Your task to perform on an android device: Clear the shopping cart on costco. Add "panasonic triple a" to the cart on costco Image 0: 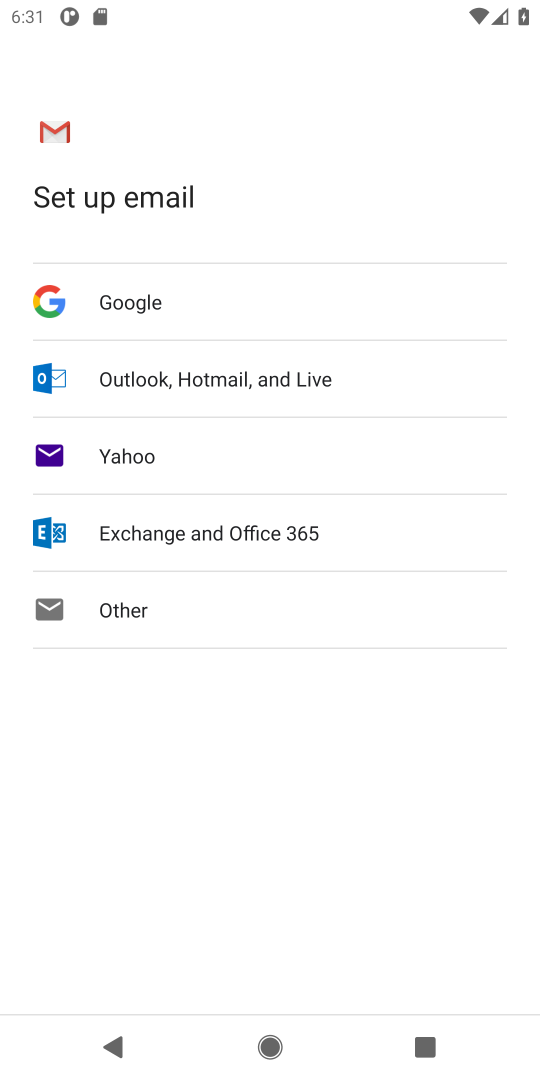
Step 0: press home button
Your task to perform on an android device: Clear the shopping cart on costco. Add "panasonic triple a" to the cart on costco Image 1: 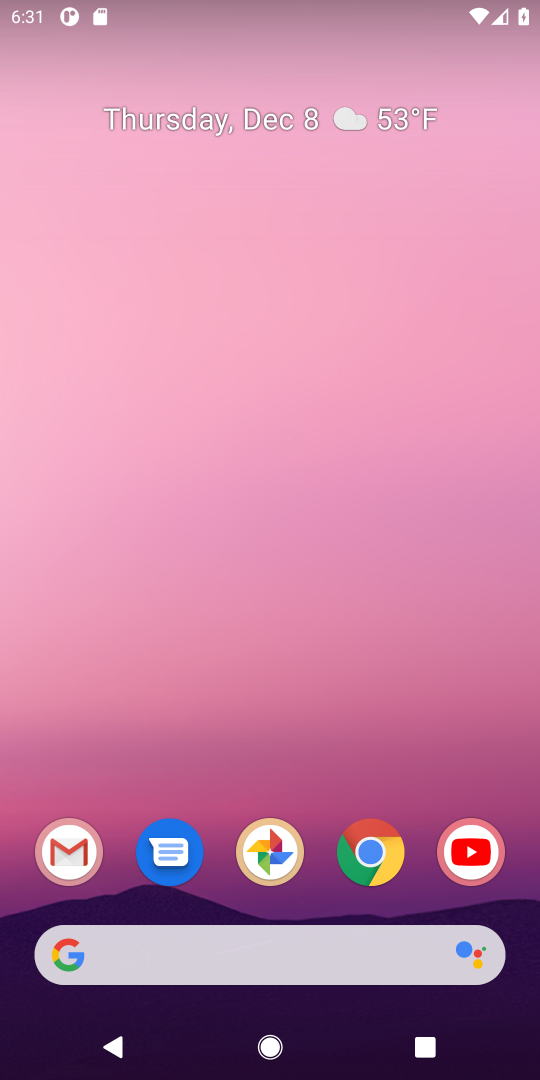
Step 1: click (246, 971)
Your task to perform on an android device: Clear the shopping cart on costco. Add "panasonic triple a" to the cart on costco Image 2: 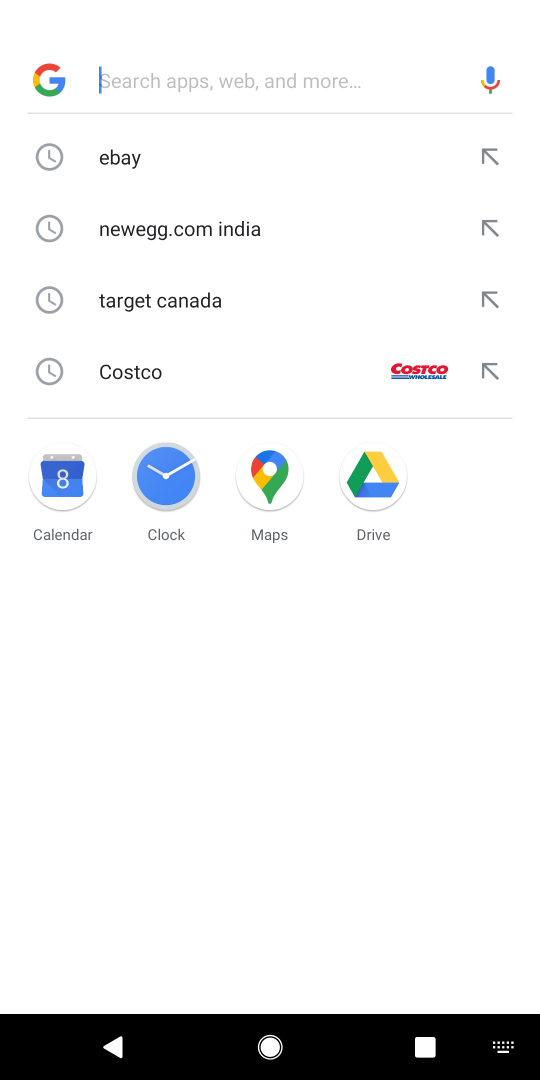
Step 2: click (159, 373)
Your task to perform on an android device: Clear the shopping cart on costco. Add "panasonic triple a" to the cart on costco Image 3: 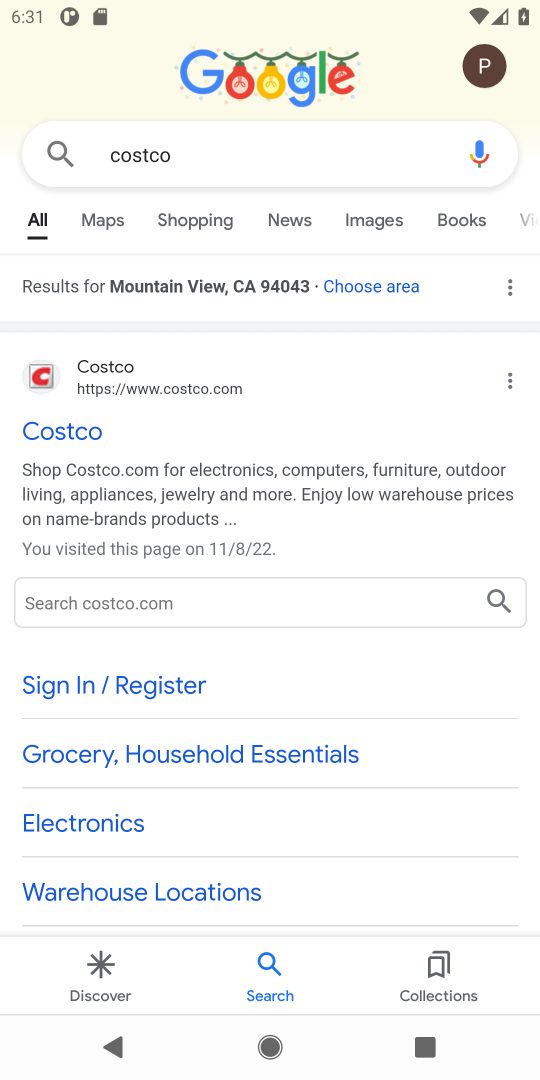
Step 3: click (81, 425)
Your task to perform on an android device: Clear the shopping cart on costco. Add "panasonic triple a" to the cart on costco Image 4: 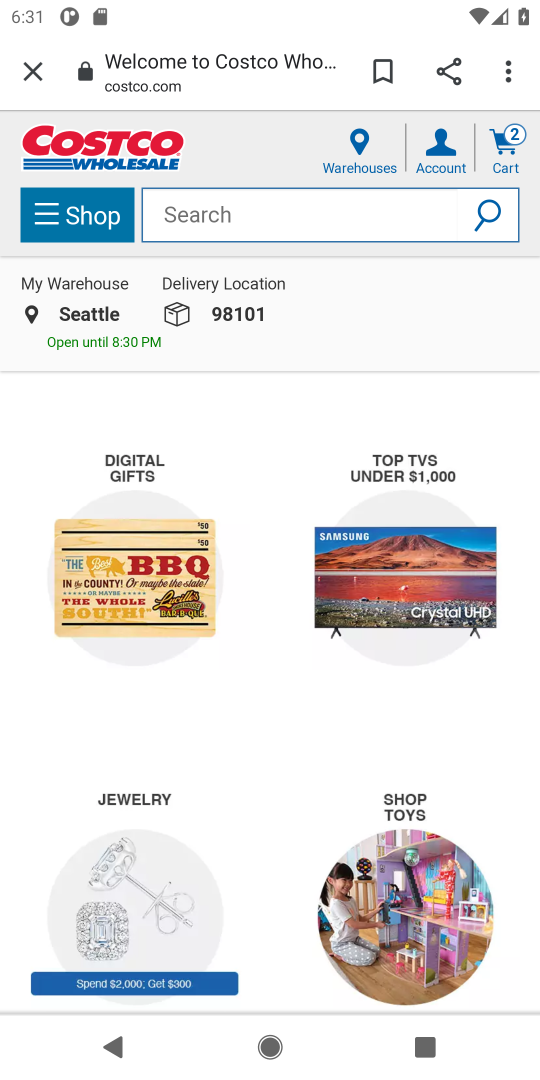
Step 4: click (300, 222)
Your task to perform on an android device: Clear the shopping cart on costco. Add "panasonic triple a" to the cart on costco Image 5: 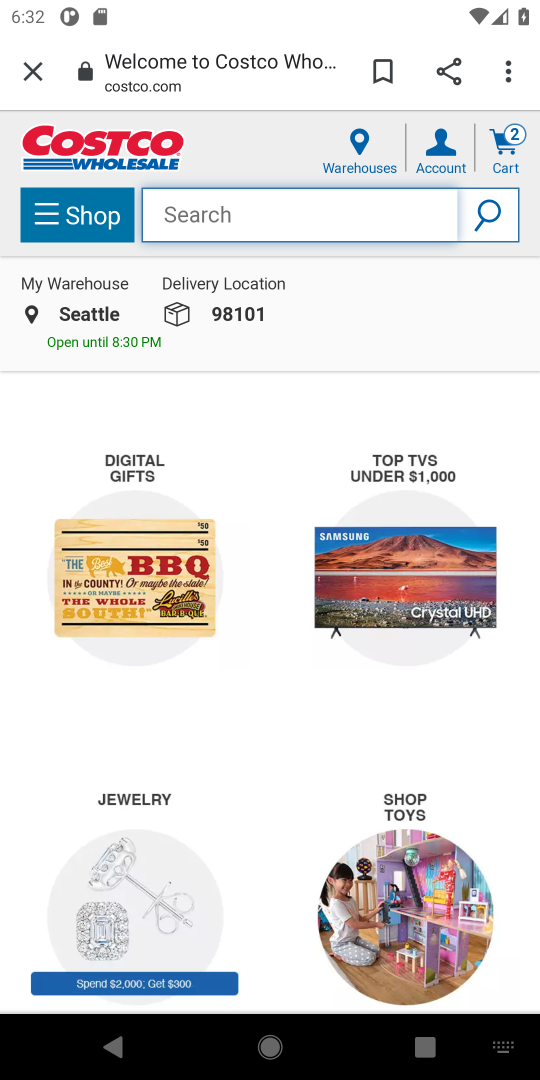
Step 5: type "panasonic triple a"
Your task to perform on an android device: Clear the shopping cart on costco. Add "panasonic triple a" to the cart on costco Image 6: 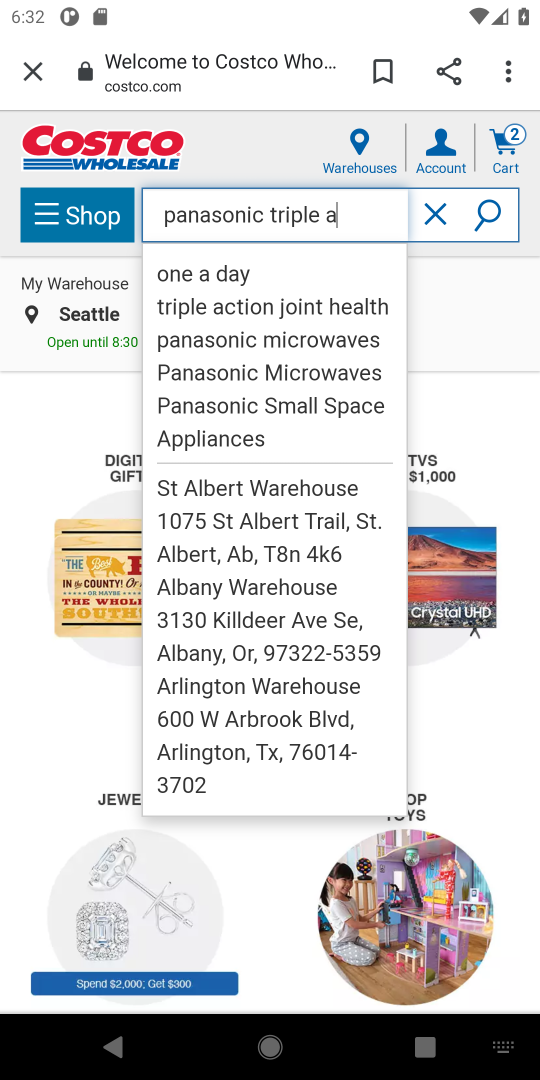
Step 6: click (498, 225)
Your task to perform on an android device: Clear the shopping cart on costco. Add "panasonic triple a" to the cart on costco Image 7: 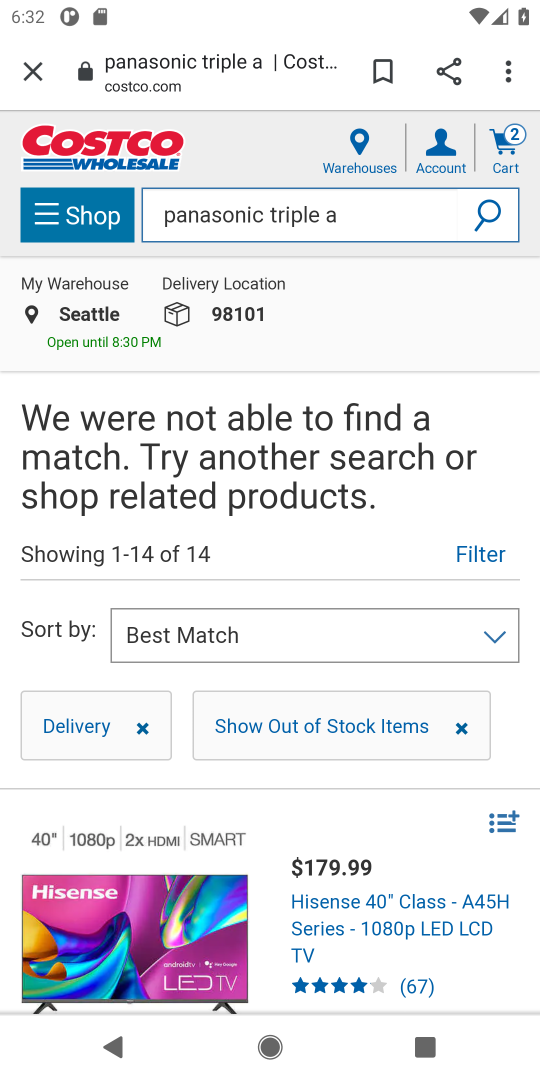
Step 7: drag from (399, 859) to (414, 352)
Your task to perform on an android device: Clear the shopping cart on costco. Add "panasonic triple a" to the cart on costco Image 8: 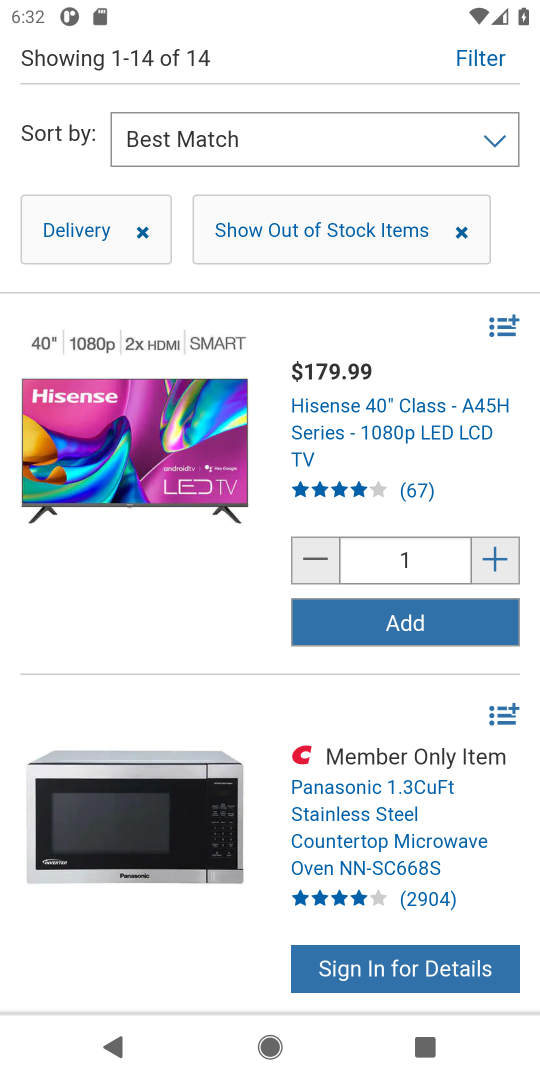
Step 8: click (446, 633)
Your task to perform on an android device: Clear the shopping cart on costco. Add "panasonic triple a" to the cart on costco Image 9: 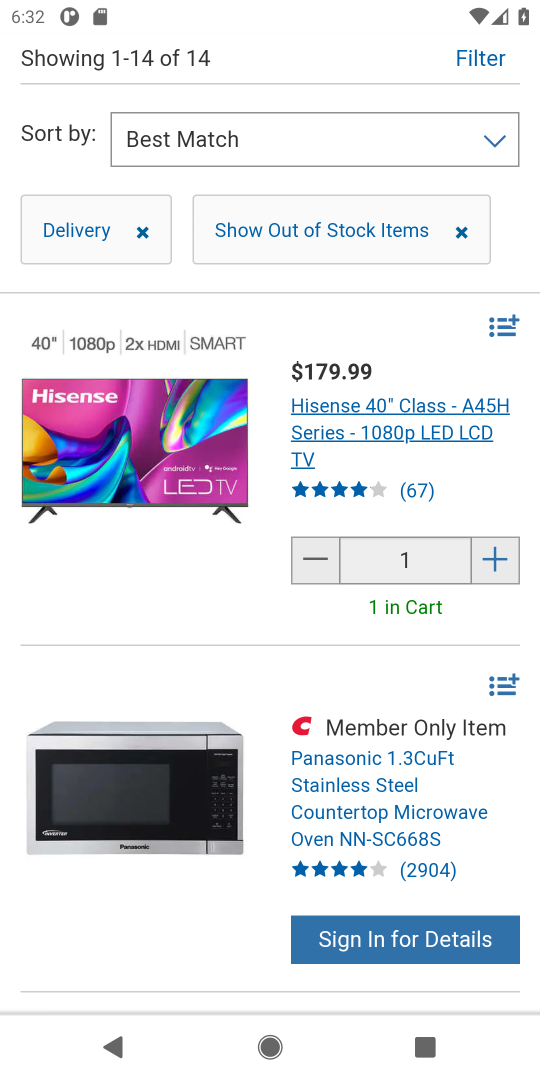
Step 9: task complete